Your task to perform on an android device: clear all cookies in the chrome app Image 0: 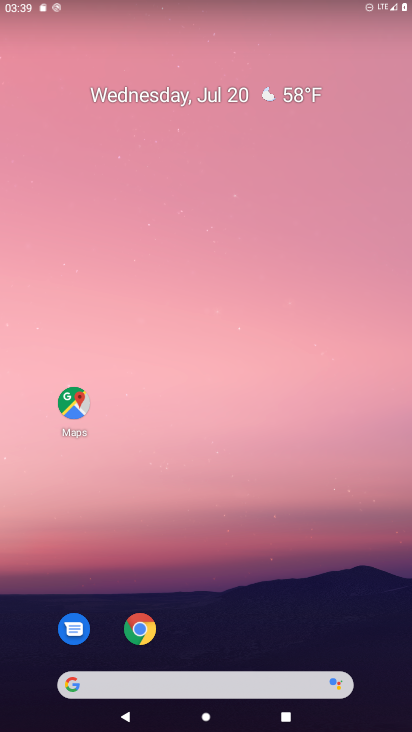
Step 0: click (142, 629)
Your task to perform on an android device: clear all cookies in the chrome app Image 1: 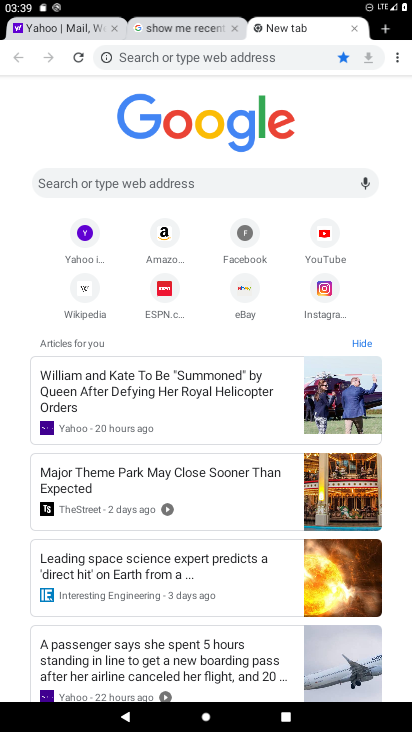
Step 1: drag from (403, 61) to (290, 259)
Your task to perform on an android device: clear all cookies in the chrome app Image 2: 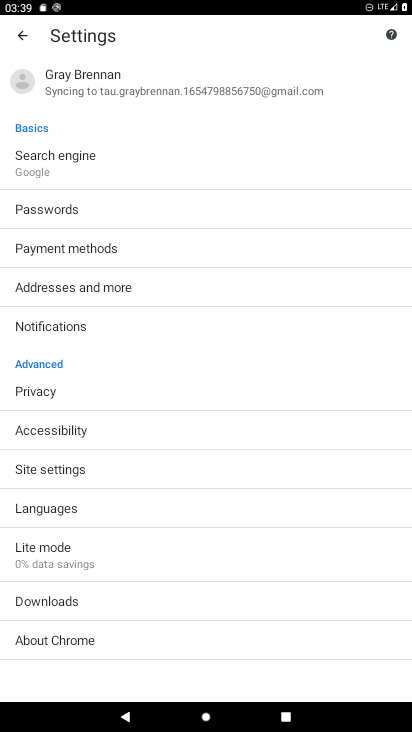
Step 2: click (25, 393)
Your task to perform on an android device: clear all cookies in the chrome app Image 3: 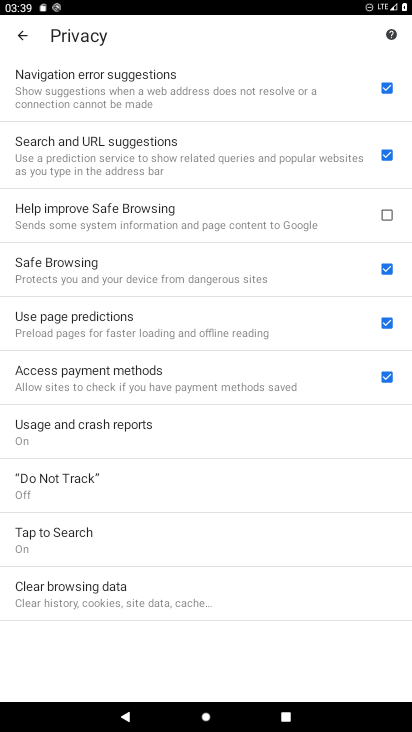
Step 3: click (176, 582)
Your task to perform on an android device: clear all cookies in the chrome app Image 4: 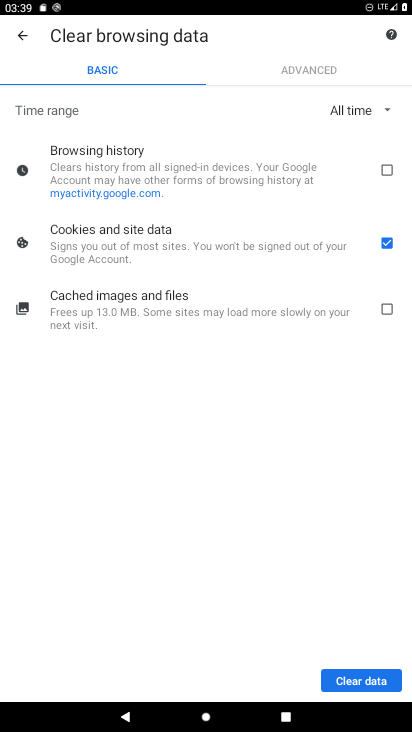
Step 4: click (375, 670)
Your task to perform on an android device: clear all cookies in the chrome app Image 5: 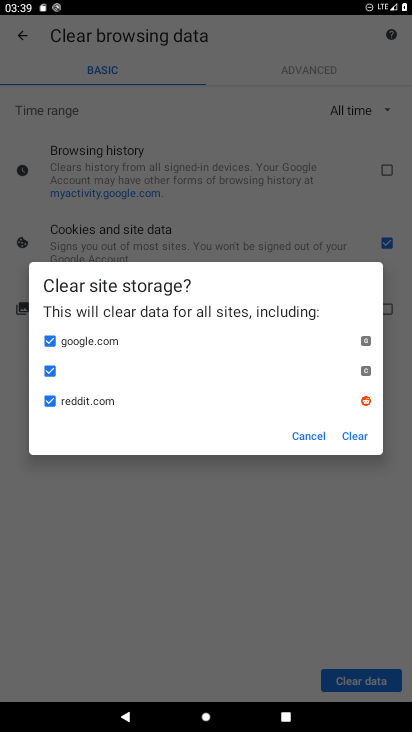
Step 5: click (344, 441)
Your task to perform on an android device: clear all cookies in the chrome app Image 6: 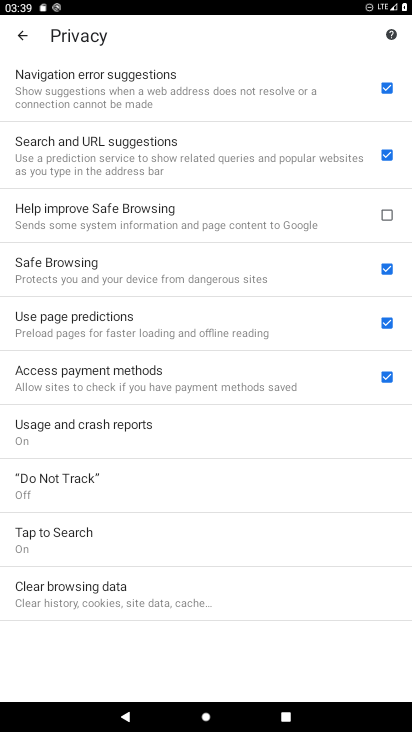
Step 6: task complete